Your task to perform on an android device: check storage Image 0: 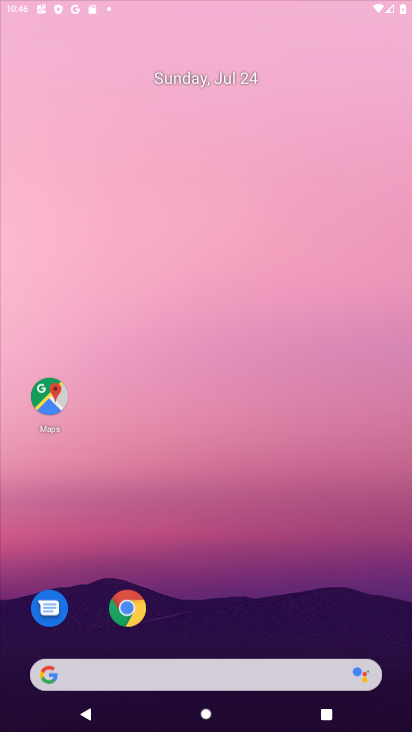
Step 0: press home button
Your task to perform on an android device: check storage Image 1: 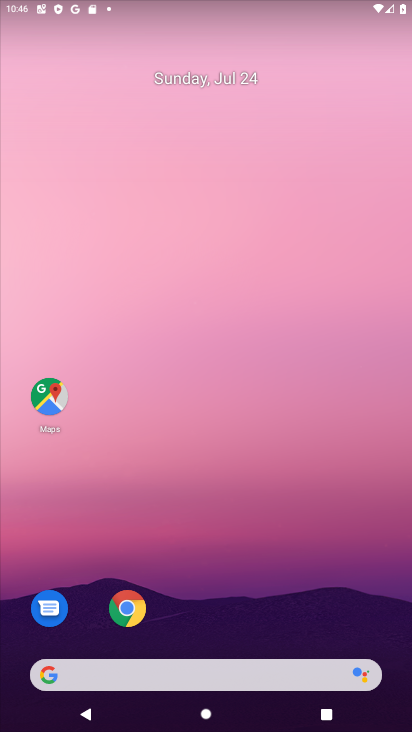
Step 1: drag from (222, 648) to (206, 148)
Your task to perform on an android device: check storage Image 2: 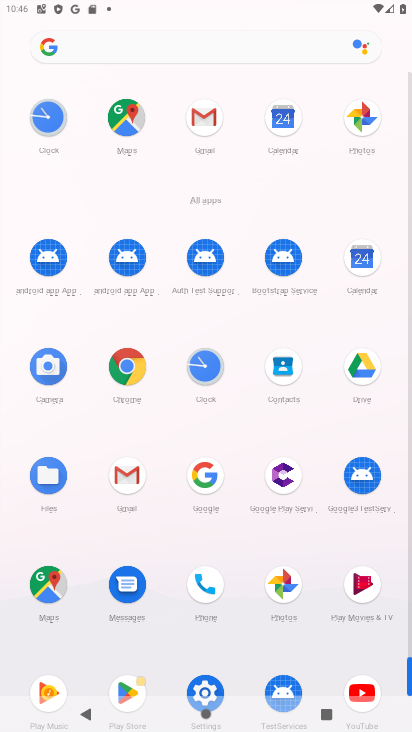
Step 2: drag from (191, 650) to (223, 204)
Your task to perform on an android device: check storage Image 3: 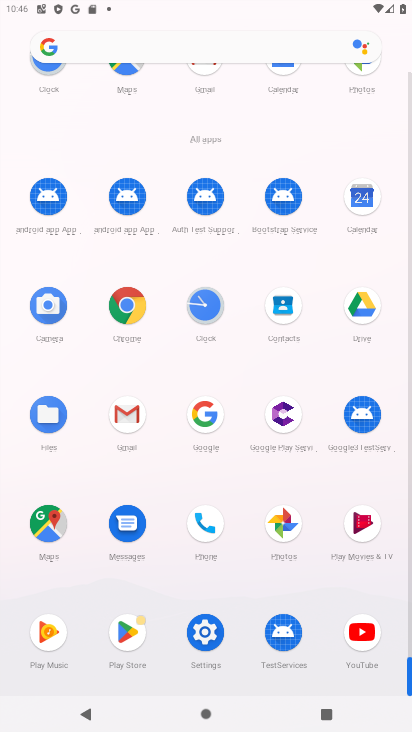
Step 3: click (202, 627)
Your task to perform on an android device: check storage Image 4: 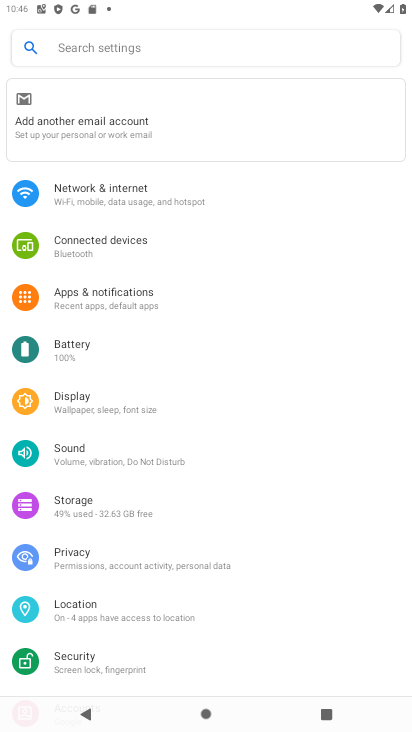
Step 4: click (110, 498)
Your task to perform on an android device: check storage Image 5: 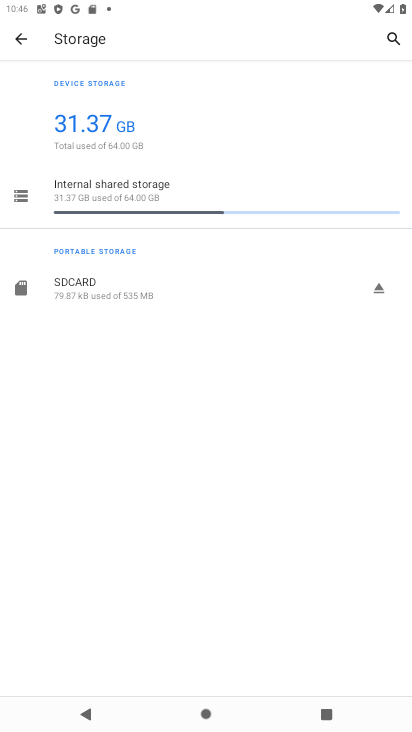
Step 5: task complete